Your task to perform on an android device: Go to Reddit.com Image 0: 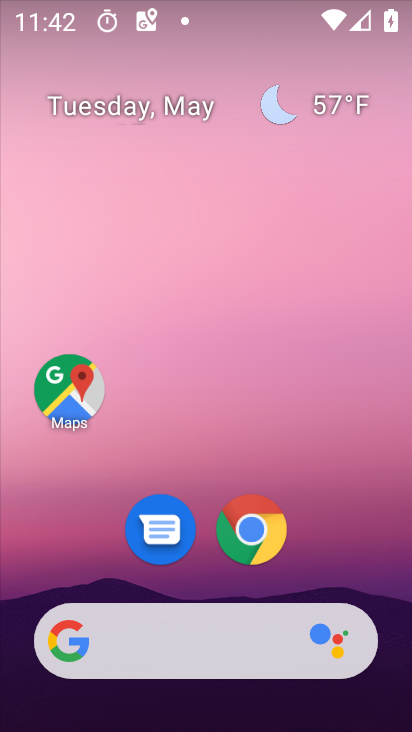
Step 0: click (248, 537)
Your task to perform on an android device: Go to Reddit.com Image 1: 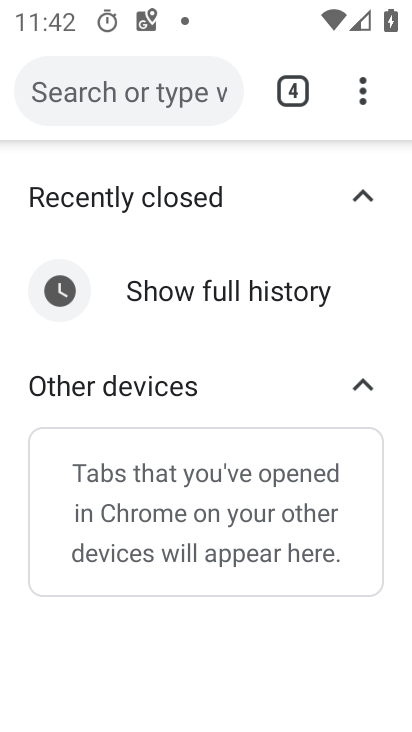
Step 1: click (100, 105)
Your task to perform on an android device: Go to Reddit.com Image 2: 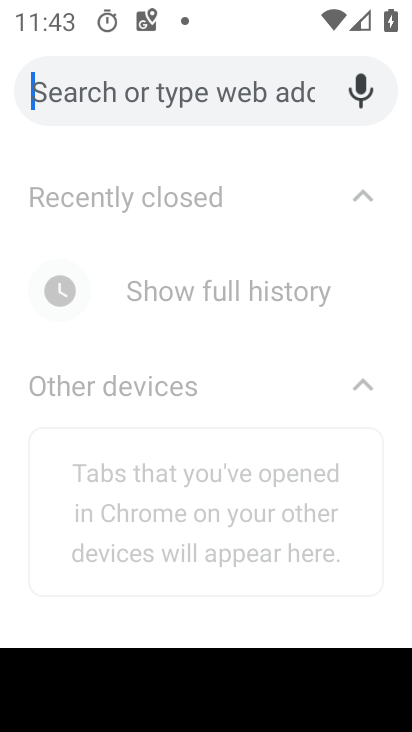
Step 2: type "reddit"
Your task to perform on an android device: Go to Reddit.com Image 3: 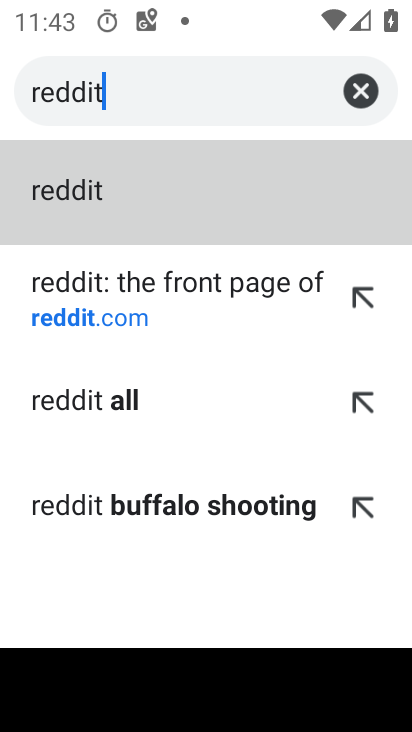
Step 3: click (180, 309)
Your task to perform on an android device: Go to Reddit.com Image 4: 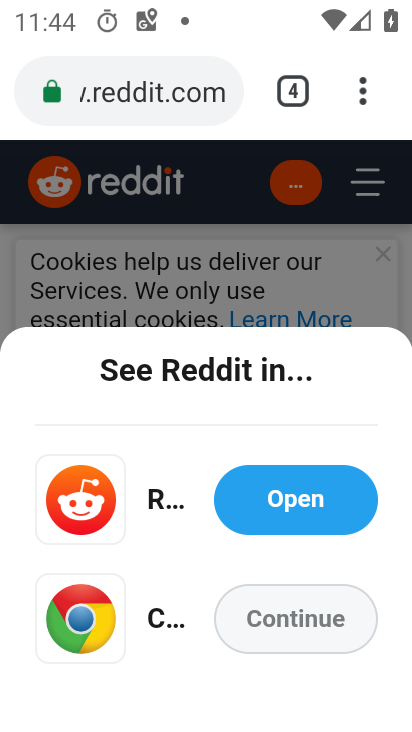
Step 4: task complete